Your task to perform on an android device: Open network settings Image 0: 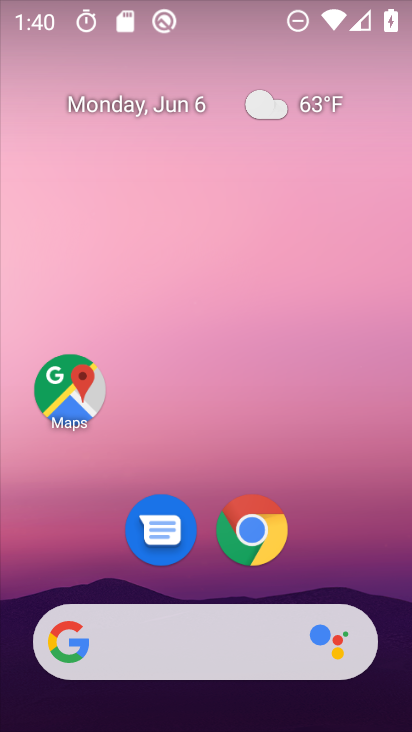
Step 0: drag from (343, 567) to (227, 205)
Your task to perform on an android device: Open network settings Image 1: 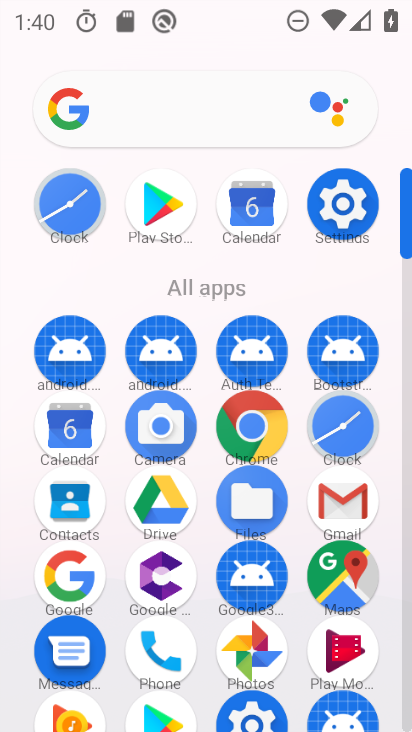
Step 1: click (340, 204)
Your task to perform on an android device: Open network settings Image 2: 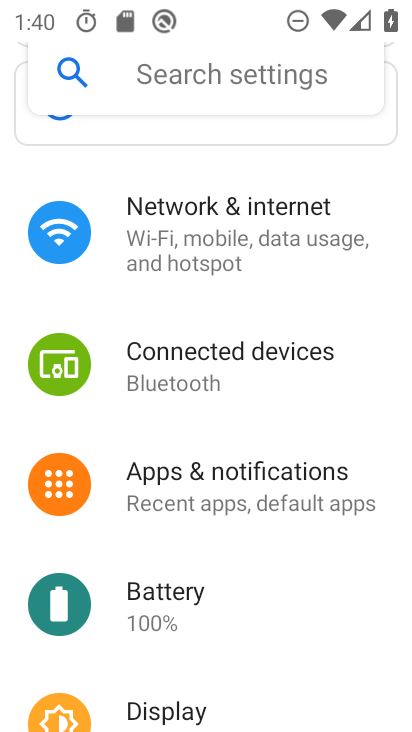
Step 2: click (236, 223)
Your task to perform on an android device: Open network settings Image 3: 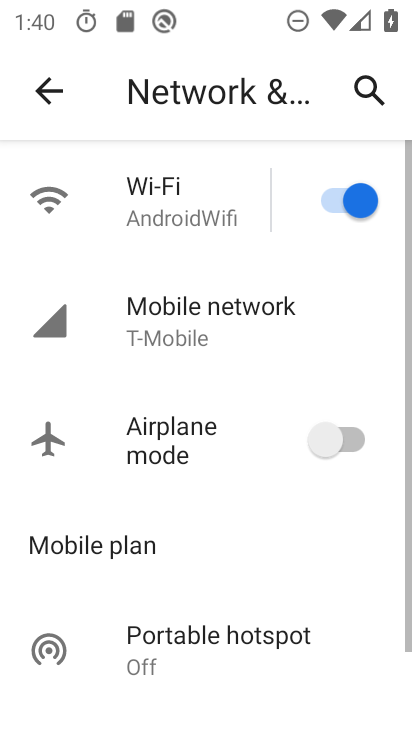
Step 3: click (200, 213)
Your task to perform on an android device: Open network settings Image 4: 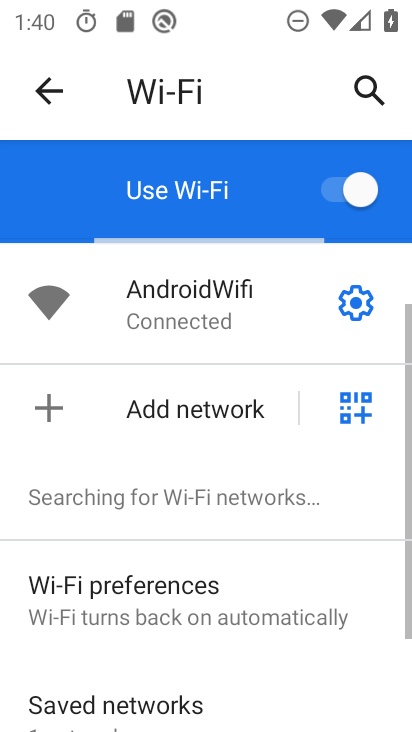
Step 4: task complete